Your task to perform on an android device: open a bookmark in the chrome app Image 0: 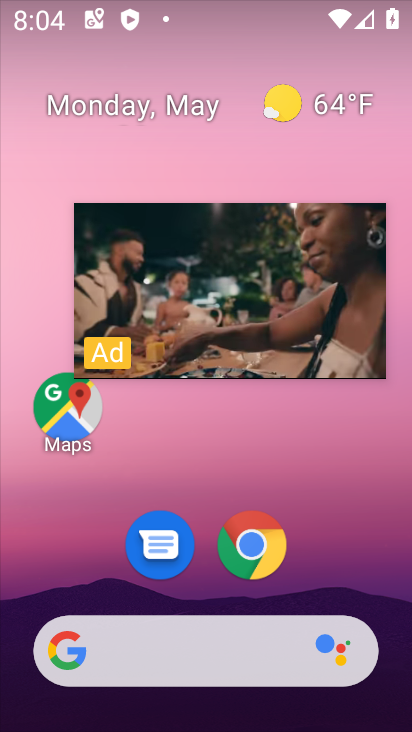
Step 0: drag from (266, 336) to (111, 716)
Your task to perform on an android device: open a bookmark in the chrome app Image 1: 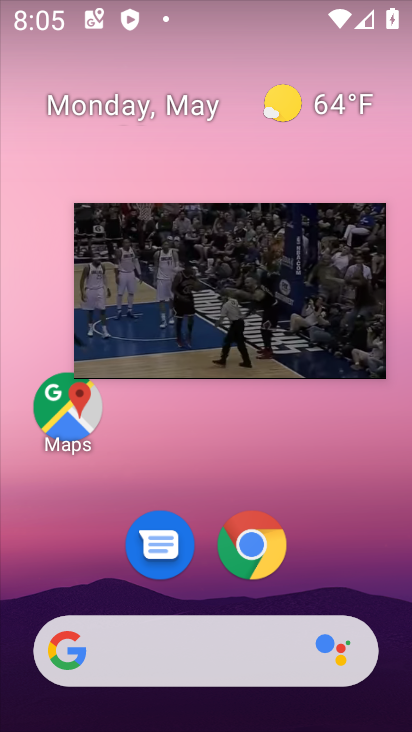
Step 1: drag from (257, 308) to (263, 709)
Your task to perform on an android device: open a bookmark in the chrome app Image 2: 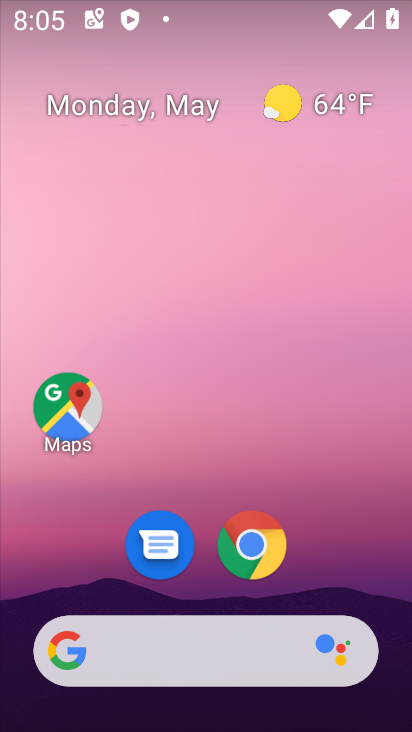
Step 2: click (250, 577)
Your task to perform on an android device: open a bookmark in the chrome app Image 3: 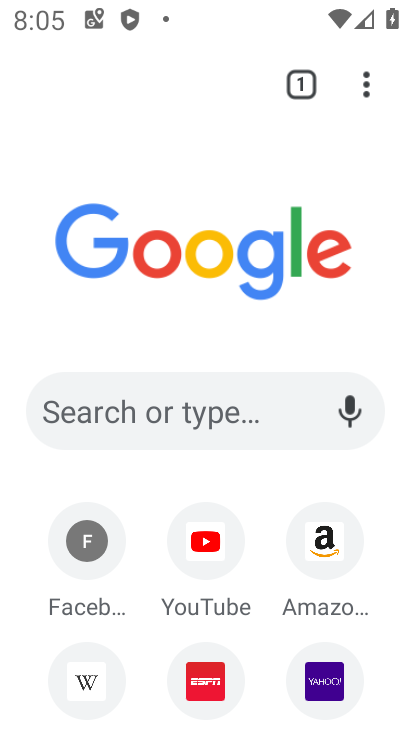
Step 3: drag from (362, 81) to (189, 321)
Your task to perform on an android device: open a bookmark in the chrome app Image 4: 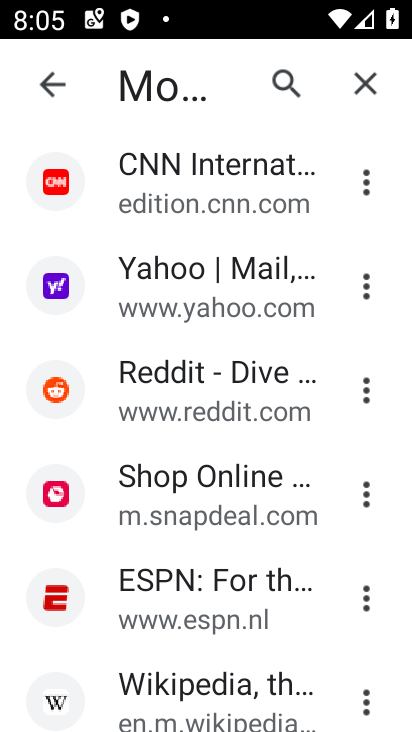
Step 4: click (189, 198)
Your task to perform on an android device: open a bookmark in the chrome app Image 5: 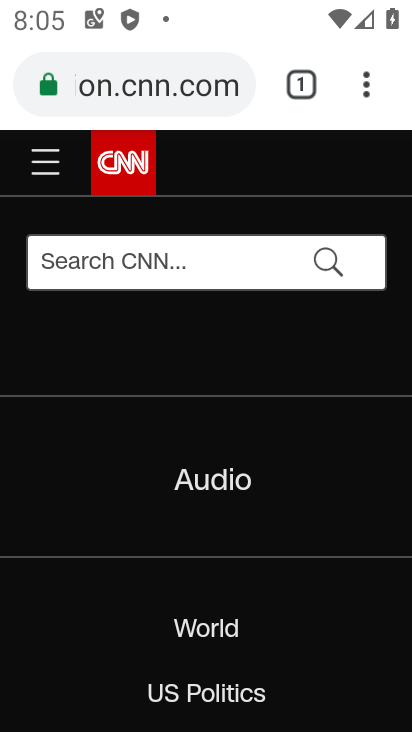
Step 5: task complete